Your task to perform on an android device: toggle sleep mode Image 0: 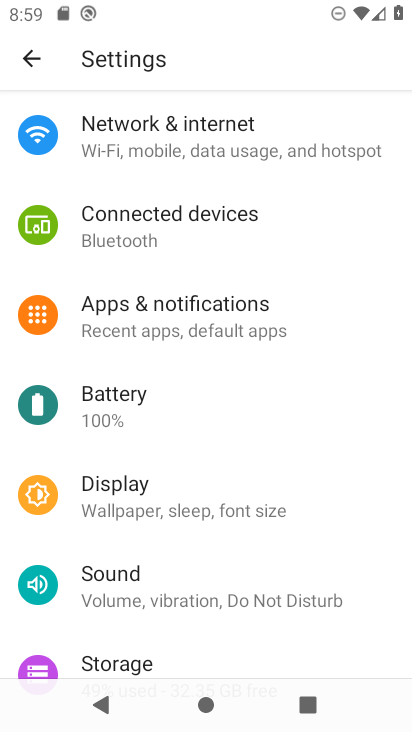
Step 0: click (193, 492)
Your task to perform on an android device: toggle sleep mode Image 1: 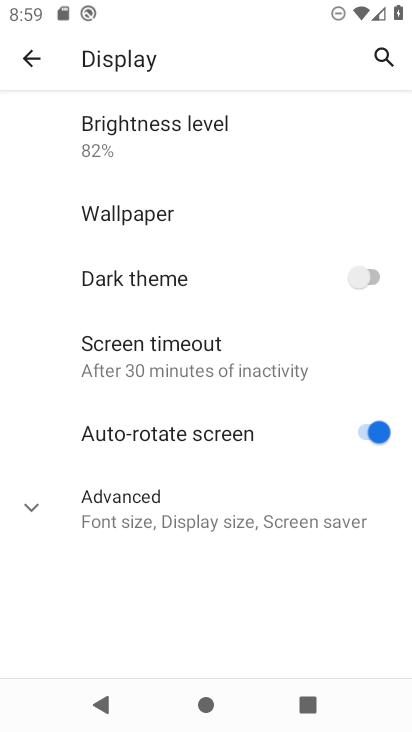
Step 1: click (32, 502)
Your task to perform on an android device: toggle sleep mode Image 2: 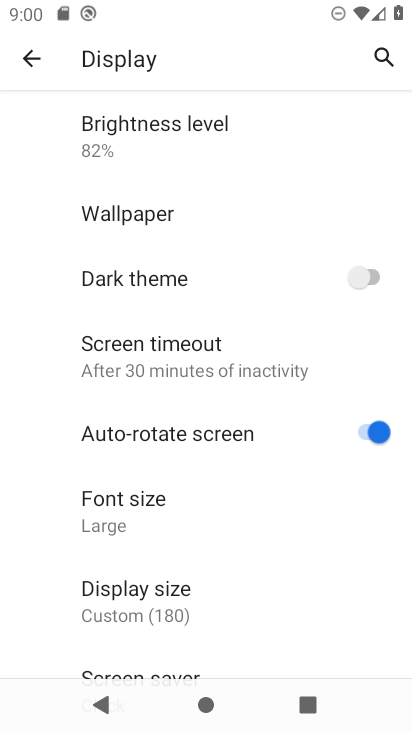
Step 2: task complete